Your task to perform on an android device: turn on showing notifications on the lock screen Image 0: 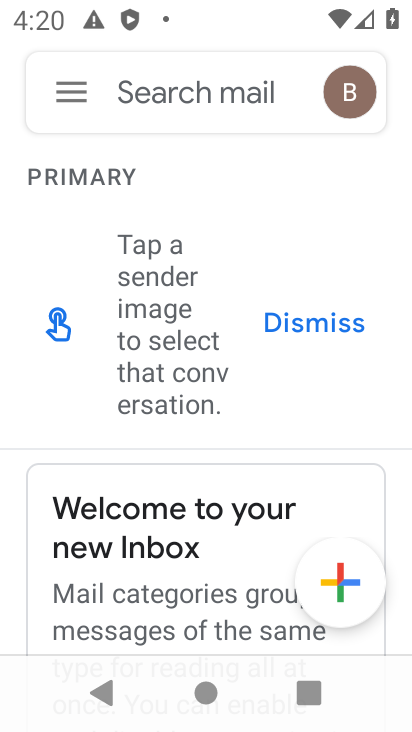
Step 0: press home button
Your task to perform on an android device: turn on showing notifications on the lock screen Image 1: 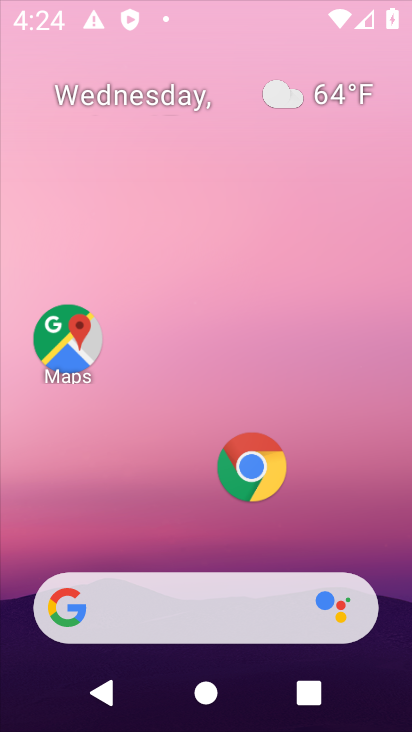
Step 1: task complete